Your task to perform on an android device: check storage Image 0: 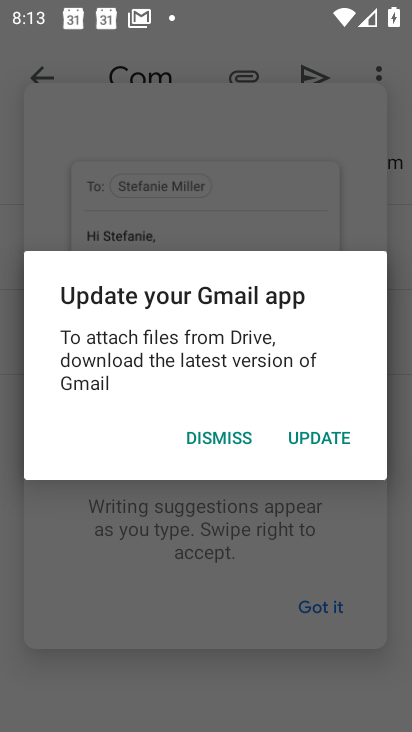
Step 0: press home button
Your task to perform on an android device: check storage Image 1: 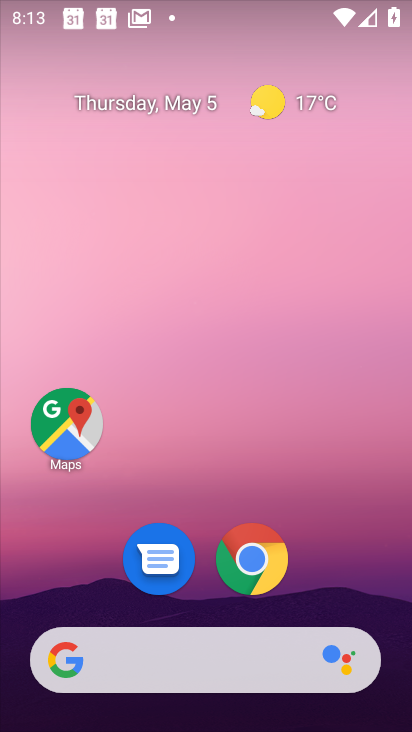
Step 1: drag from (320, 593) to (334, 0)
Your task to perform on an android device: check storage Image 2: 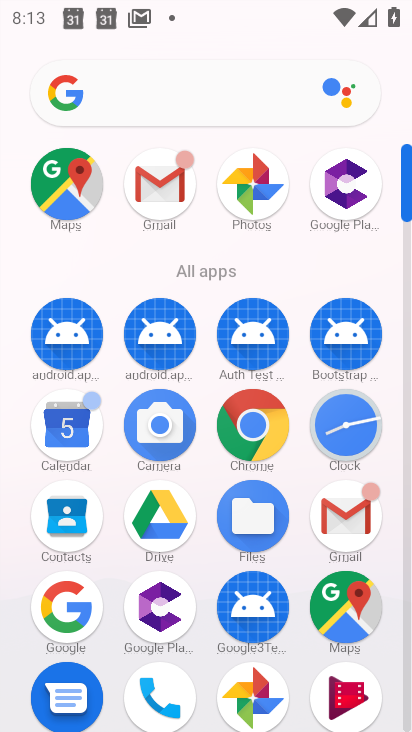
Step 2: drag from (409, 597) to (409, 532)
Your task to perform on an android device: check storage Image 3: 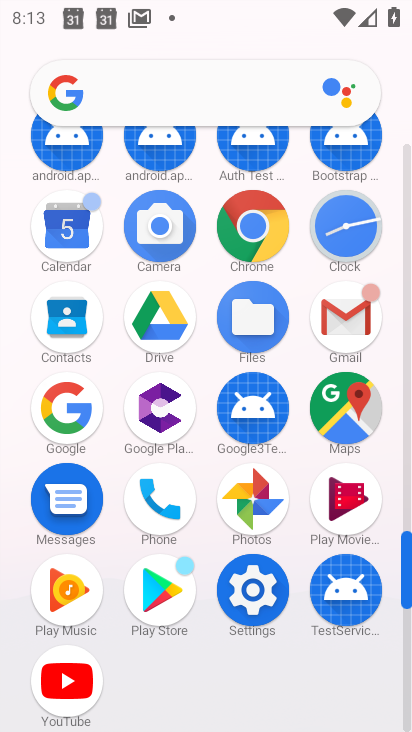
Step 3: click (240, 593)
Your task to perform on an android device: check storage Image 4: 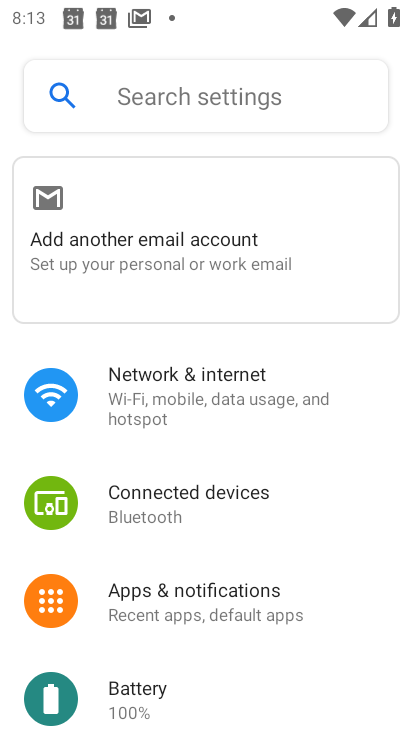
Step 4: drag from (367, 630) to (364, 264)
Your task to perform on an android device: check storage Image 5: 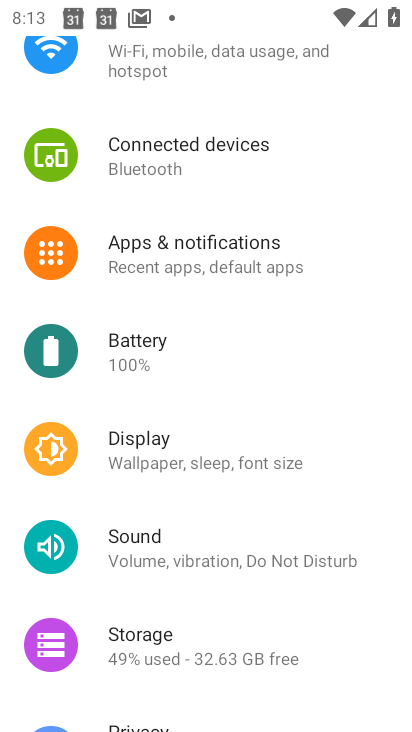
Step 5: click (106, 647)
Your task to perform on an android device: check storage Image 6: 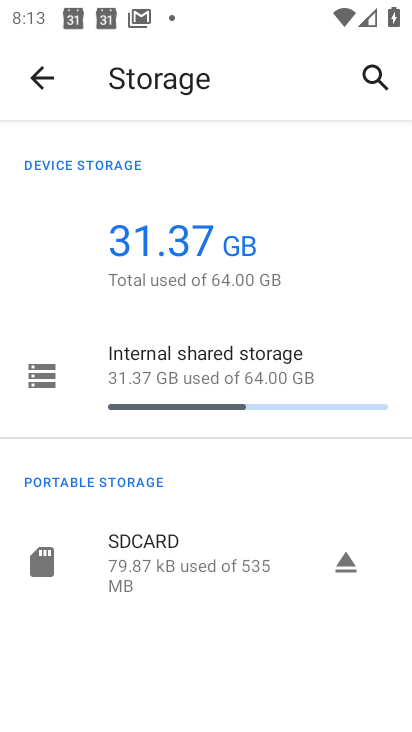
Step 6: click (149, 371)
Your task to perform on an android device: check storage Image 7: 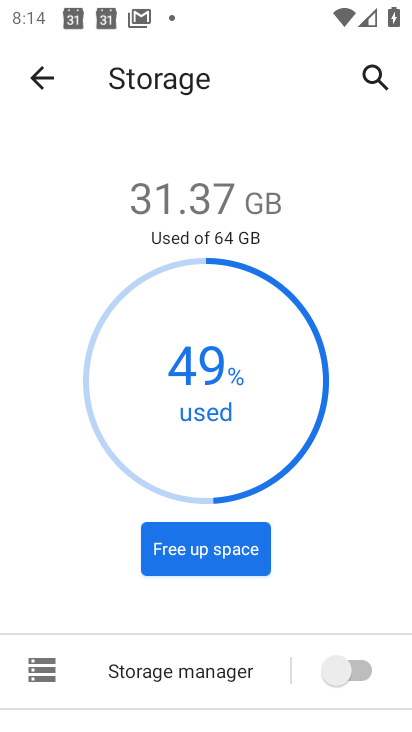
Step 7: task complete